Your task to perform on an android device: change timer sound Image 0: 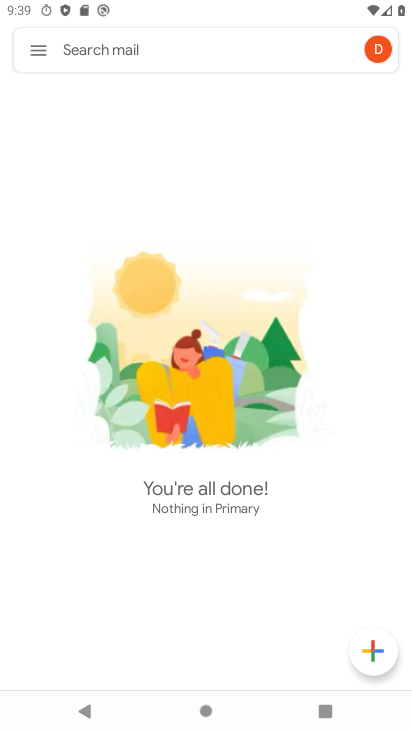
Step 0: press home button
Your task to perform on an android device: change timer sound Image 1: 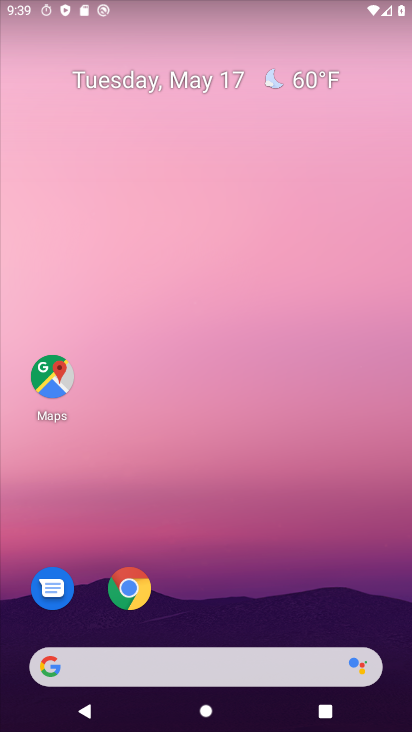
Step 1: drag from (243, 557) to (141, 323)
Your task to perform on an android device: change timer sound Image 2: 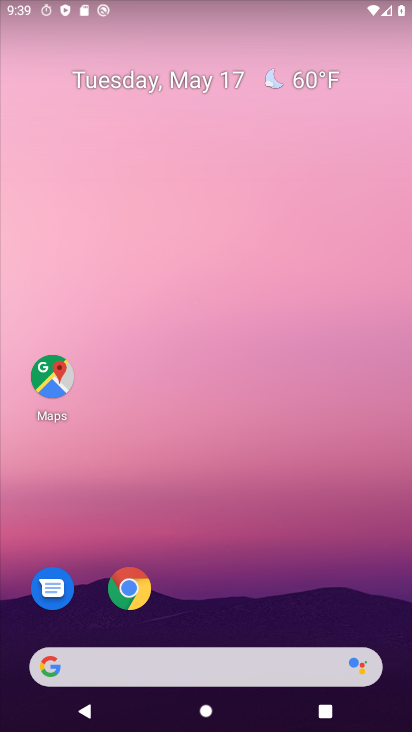
Step 2: drag from (283, 624) to (269, 141)
Your task to perform on an android device: change timer sound Image 3: 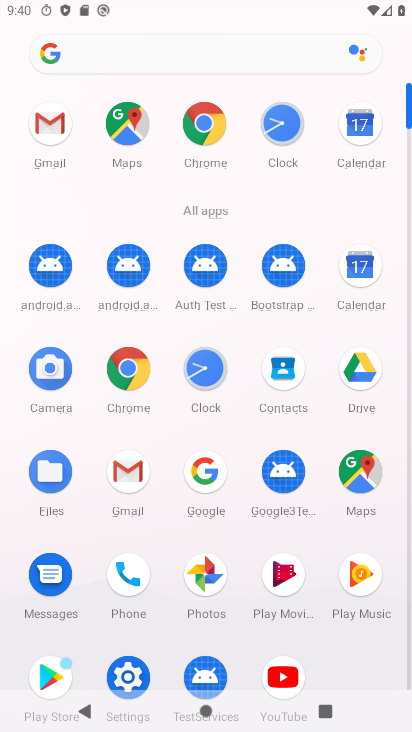
Step 3: click (208, 374)
Your task to perform on an android device: change timer sound Image 4: 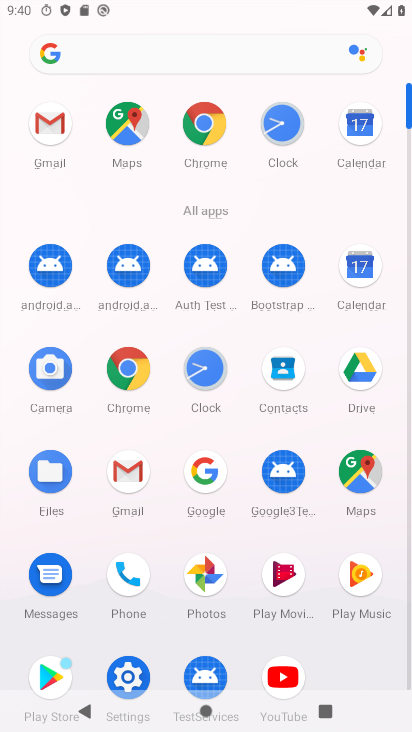
Step 4: click (208, 375)
Your task to perform on an android device: change timer sound Image 5: 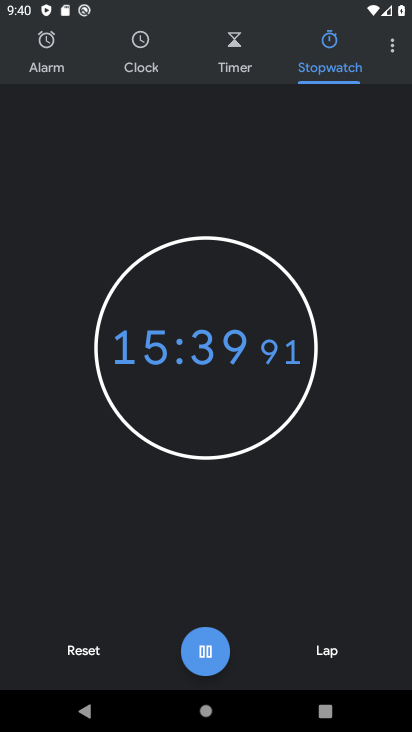
Step 5: click (399, 45)
Your task to perform on an android device: change timer sound Image 6: 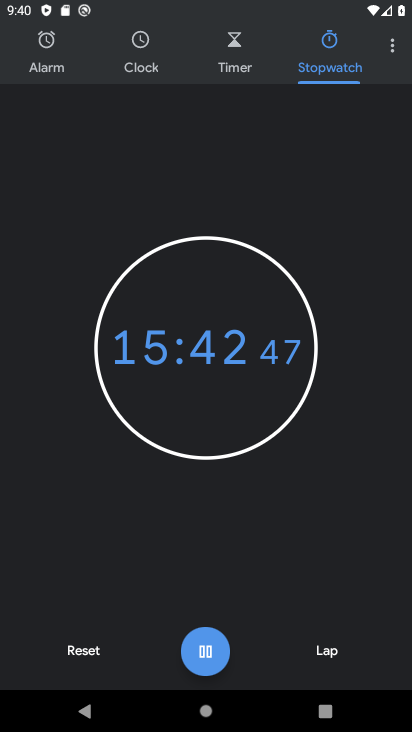
Step 6: click (397, 46)
Your task to perform on an android device: change timer sound Image 7: 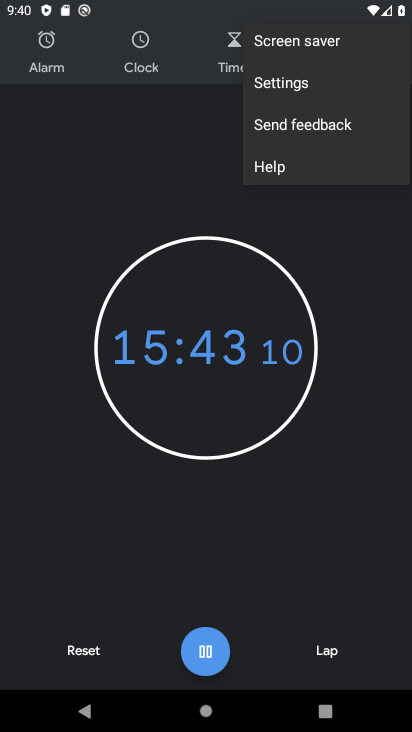
Step 7: click (209, 647)
Your task to perform on an android device: change timer sound Image 8: 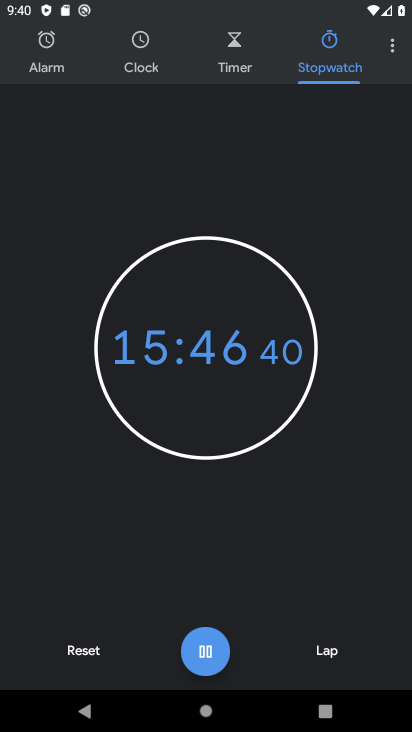
Step 8: click (395, 46)
Your task to perform on an android device: change timer sound Image 9: 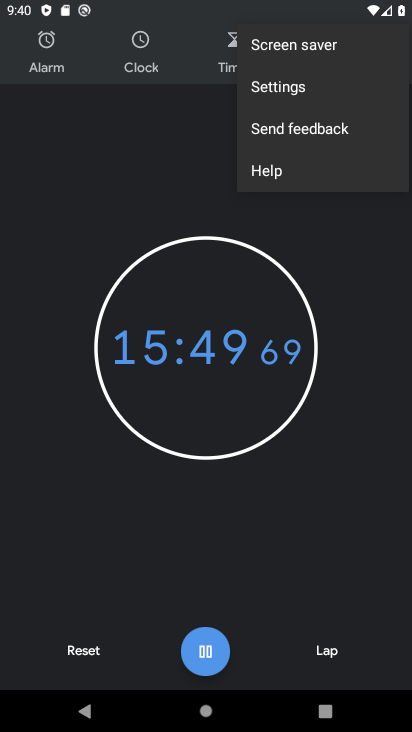
Step 9: click (384, 47)
Your task to perform on an android device: change timer sound Image 10: 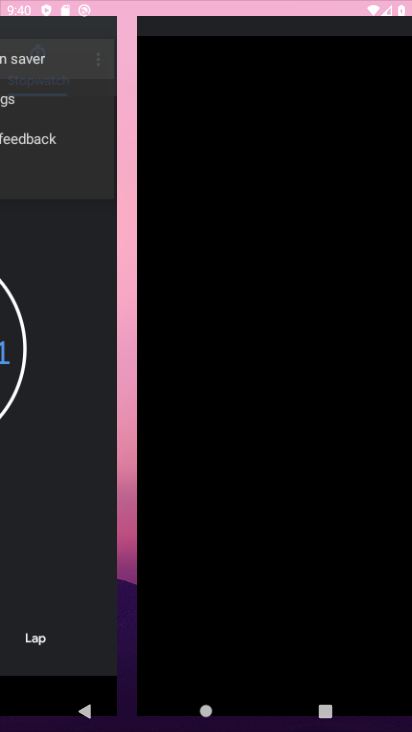
Step 10: click (263, 86)
Your task to perform on an android device: change timer sound Image 11: 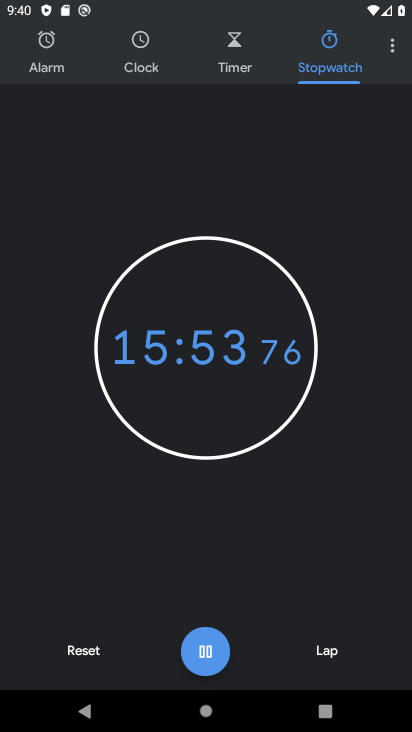
Step 11: click (201, 642)
Your task to perform on an android device: change timer sound Image 12: 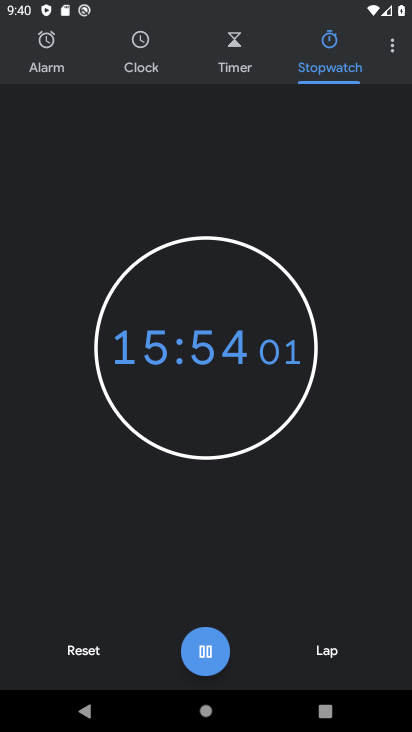
Step 12: click (203, 639)
Your task to perform on an android device: change timer sound Image 13: 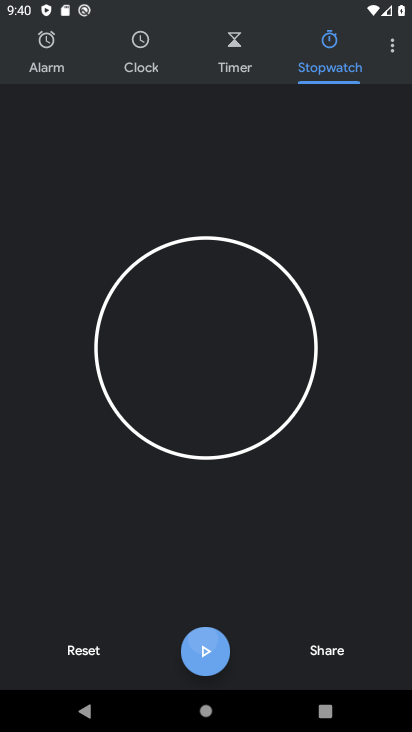
Step 13: click (202, 639)
Your task to perform on an android device: change timer sound Image 14: 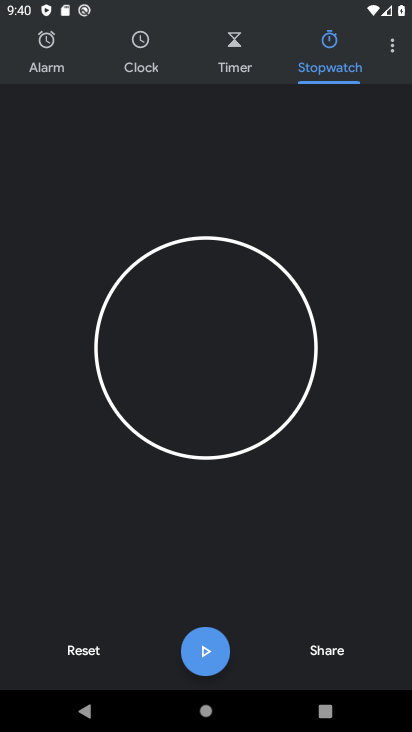
Step 14: click (396, 49)
Your task to perform on an android device: change timer sound Image 15: 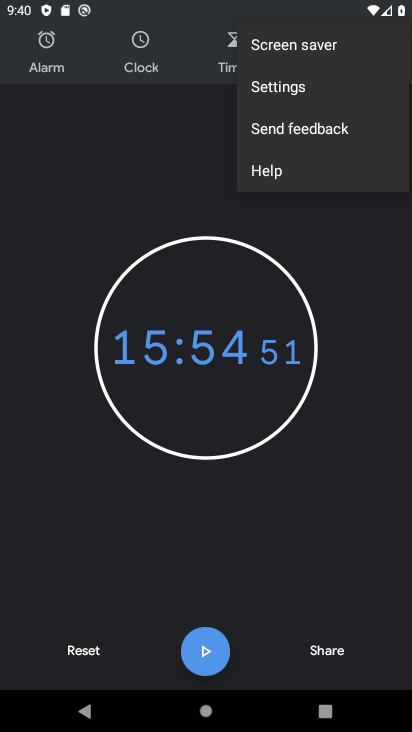
Step 15: click (262, 94)
Your task to perform on an android device: change timer sound Image 16: 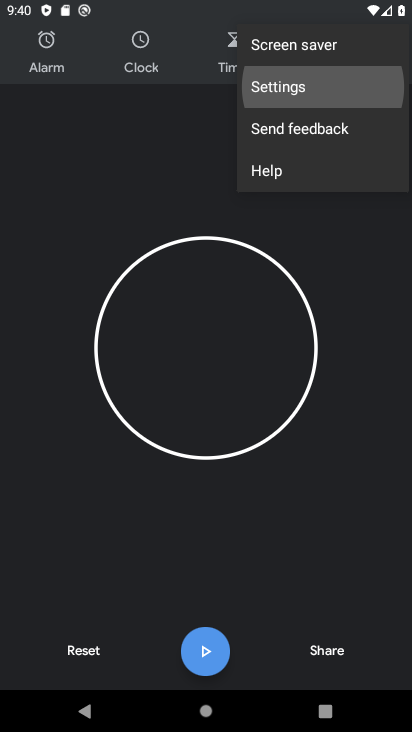
Step 16: click (268, 95)
Your task to perform on an android device: change timer sound Image 17: 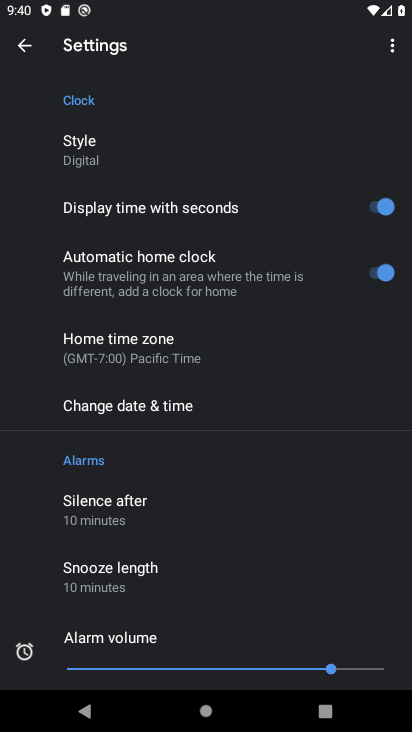
Step 17: drag from (219, 416) to (155, 174)
Your task to perform on an android device: change timer sound Image 18: 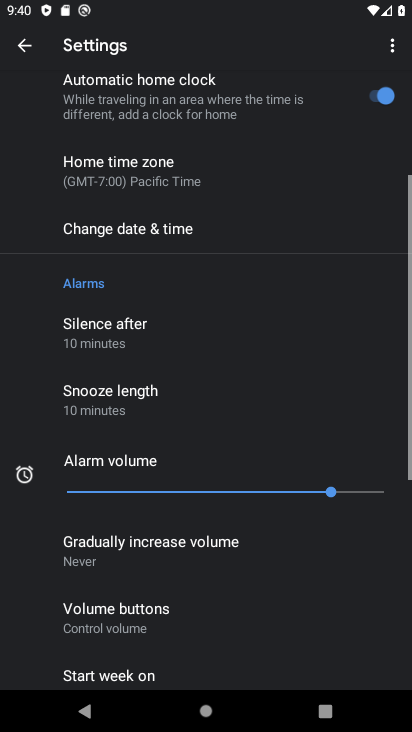
Step 18: drag from (209, 528) to (120, 68)
Your task to perform on an android device: change timer sound Image 19: 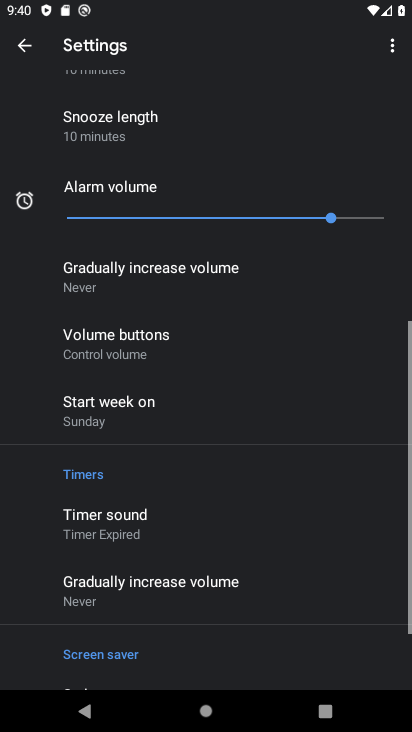
Step 19: drag from (174, 552) to (174, 133)
Your task to perform on an android device: change timer sound Image 20: 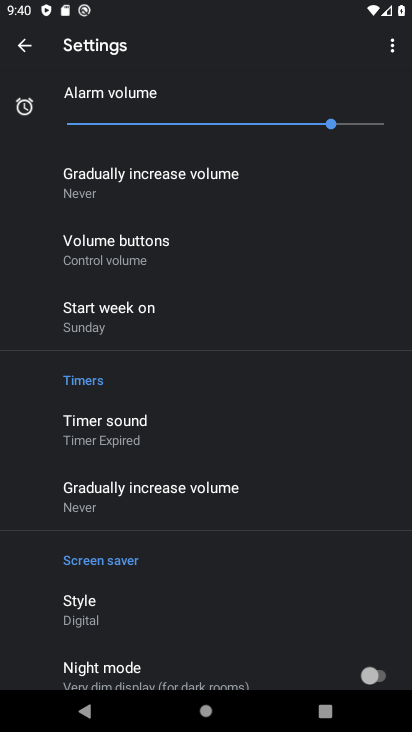
Step 20: click (88, 419)
Your task to perform on an android device: change timer sound Image 21: 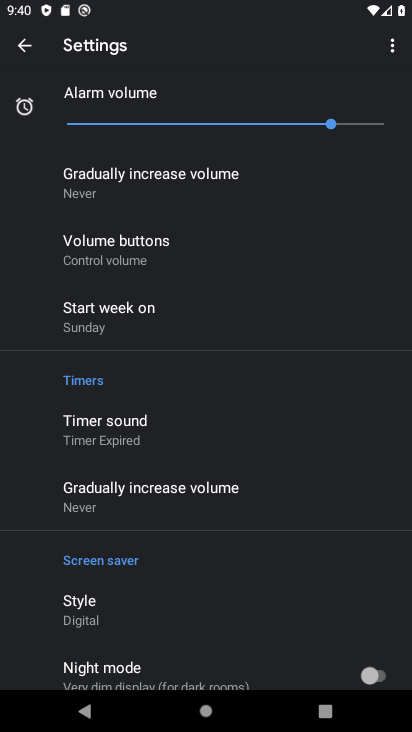
Step 21: click (88, 419)
Your task to perform on an android device: change timer sound Image 22: 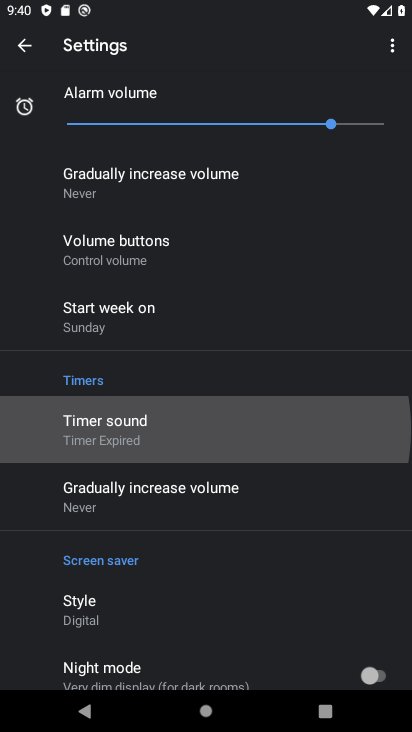
Step 22: click (89, 419)
Your task to perform on an android device: change timer sound Image 23: 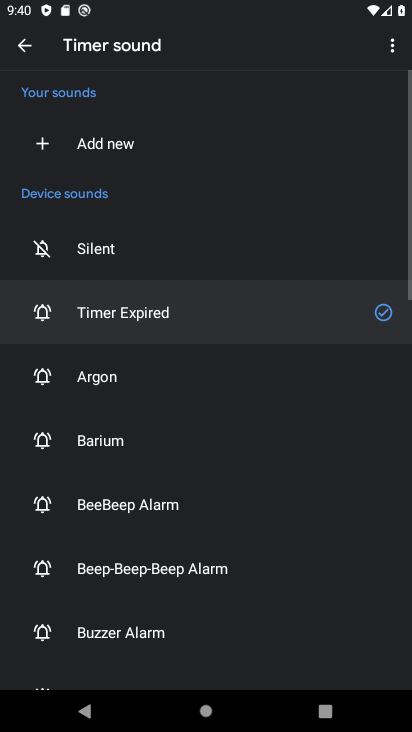
Step 23: click (91, 441)
Your task to perform on an android device: change timer sound Image 24: 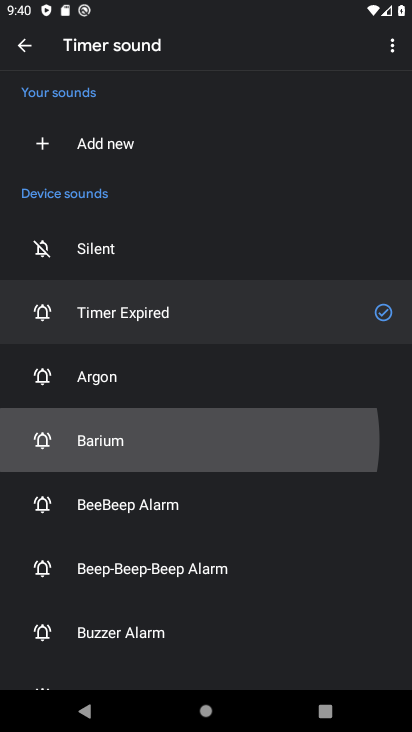
Step 24: click (92, 436)
Your task to perform on an android device: change timer sound Image 25: 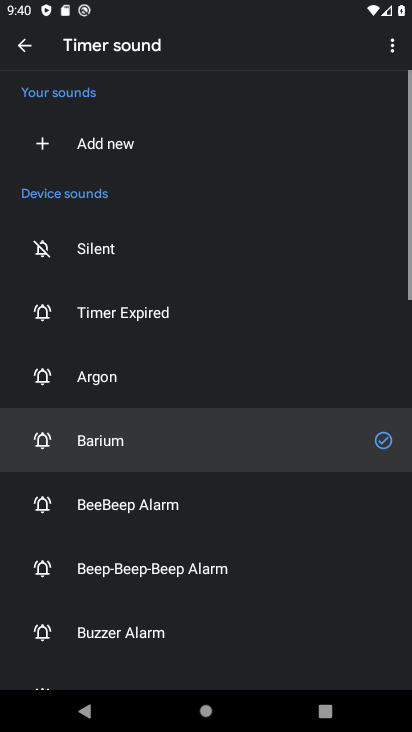
Step 25: click (88, 435)
Your task to perform on an android device: change timer sound Image 26: 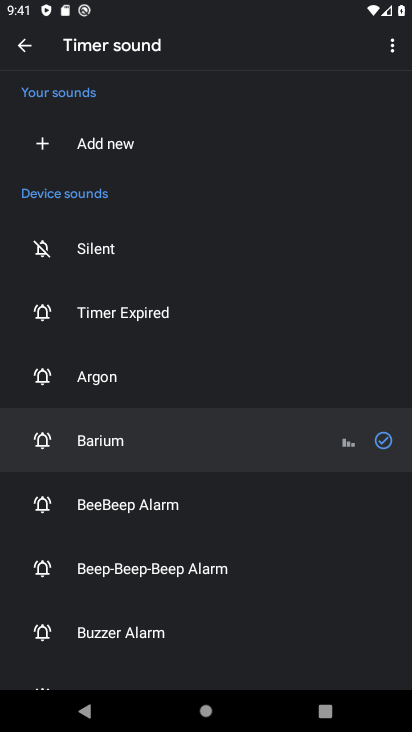
Step 26: task complete